Your task to perform on an android device: When is my next appointment? Image 0: 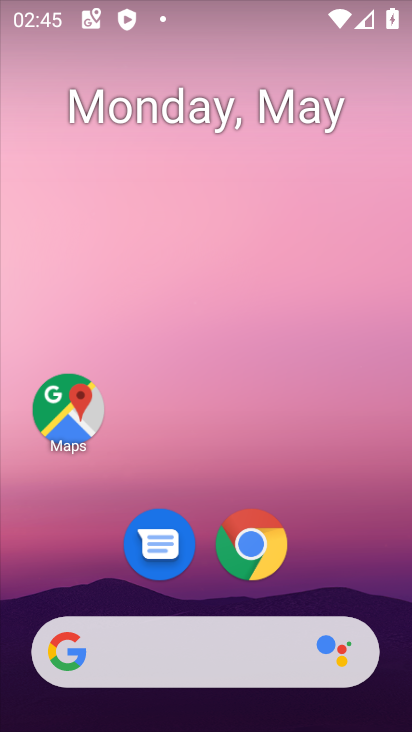
Step 0: drag from (374, 580) to (395, 209)
Your task to perform on an android device: When is my next appointment? Image 1: 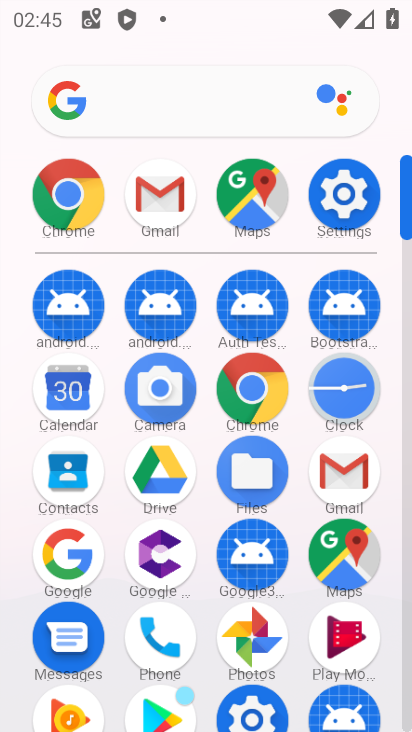
Step 1: click (77, 394)
Your task to perform on an android device: When is my next appointment? Image 2: 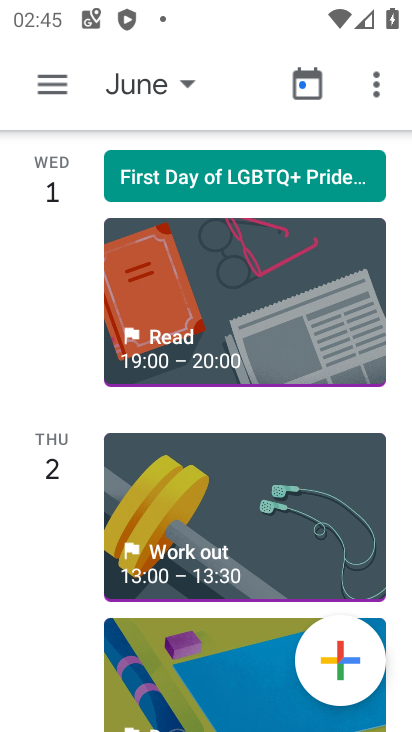
Step 2: click (191, 80)
Your task to perform on an android device: When is my next appointment? Image 3: 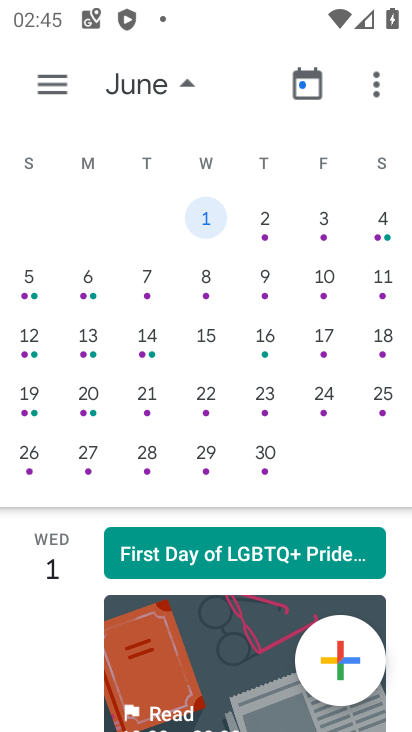
Step 3: drag from (51, 237) to (408, 363)
Your task to perform on an android device: When is my next appointment? Image 4: 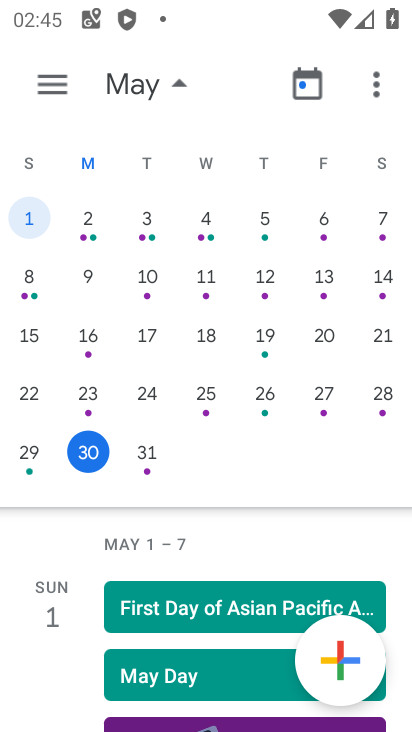
Step 4: click (148, 454)
Your task to perform on an android device: When is my next appointment? Image 5: 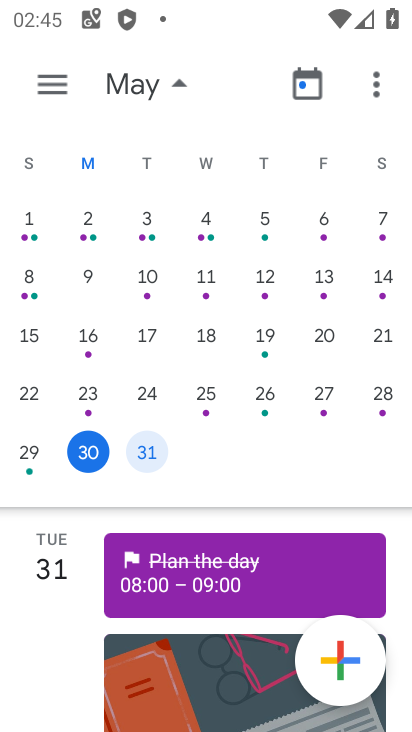
Step 5: drag from (243, 528) to (254, 131)
Your task to perform on an android device: When is my next appointment? Image 6: 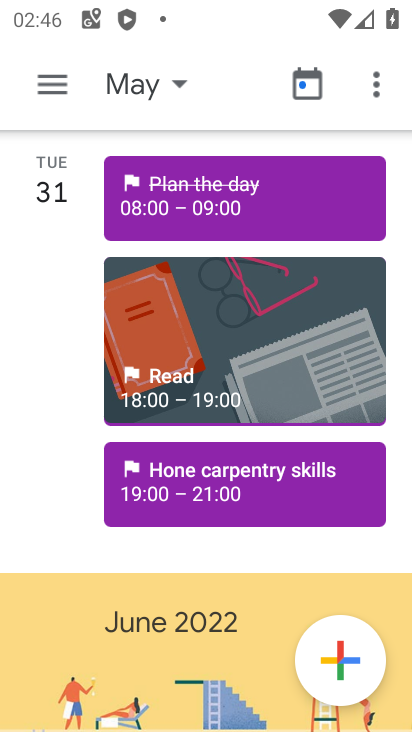
Step 6: click (241, 482)
Your task to perform on an android device: When is my next appointment? Image 7: 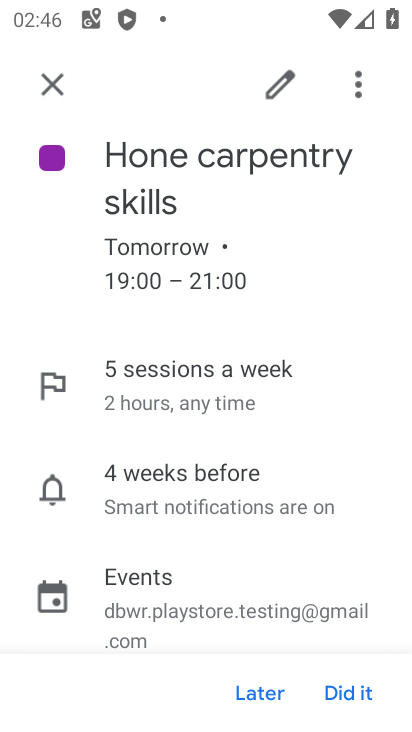
Step 7: task complete